Your task to perform on an android device: Open Youtube and go to "Your channel" Image 0: 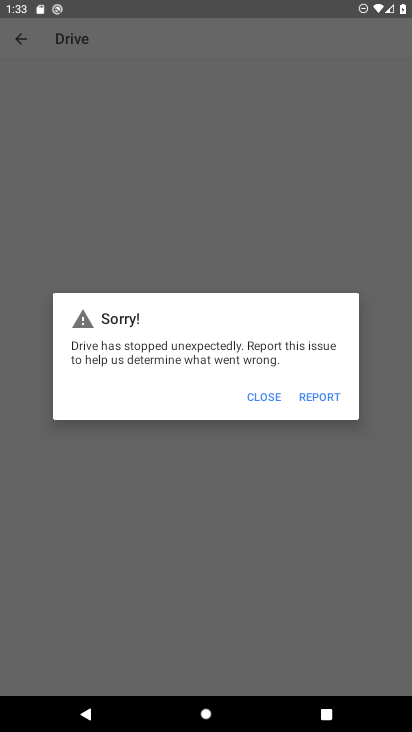
Step 0: press home button
Your task to perform on an android device: Open Youtube and go to "Your channel" Image 1: 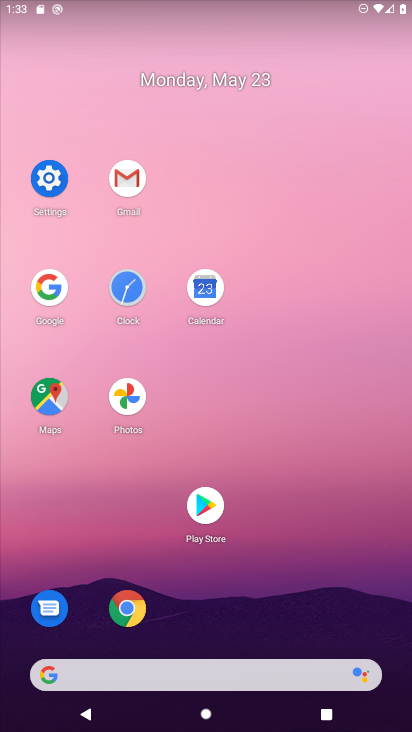
Step 1: drag from (240, 625) to (215, 210)
Your task to perform on an android device: Open Youtube and go to "Your channel" Image 2: 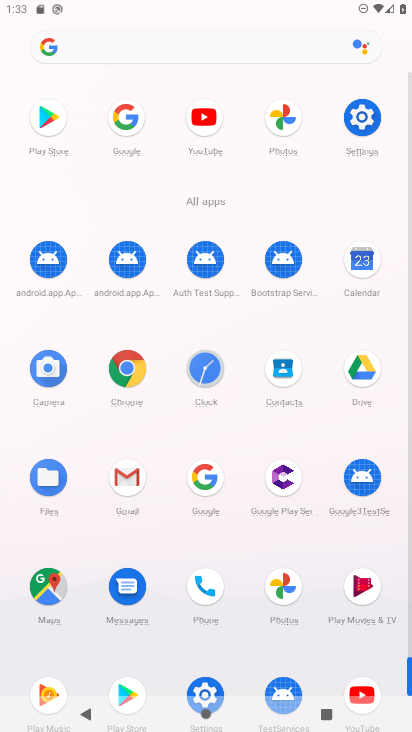
Step 2: click (208, 118)
Your task to perform on an android device: Open Youtube and go to "Your channel" Image 3: 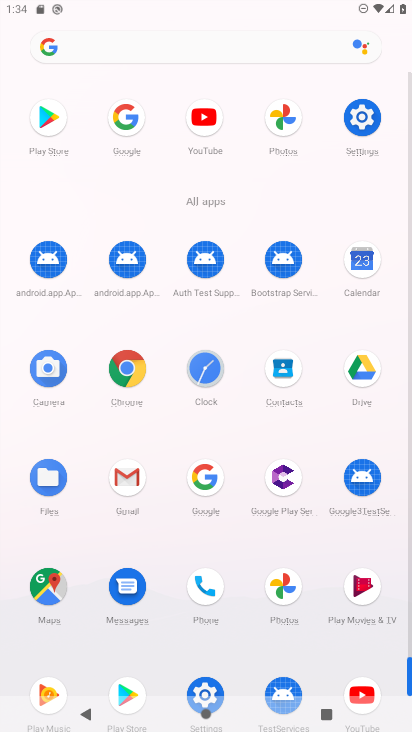
Step 3: drag from (315, 607) to (251, 173)
Your task to perform on an android device: Open Youtube and go to "Your channel" Image 4: 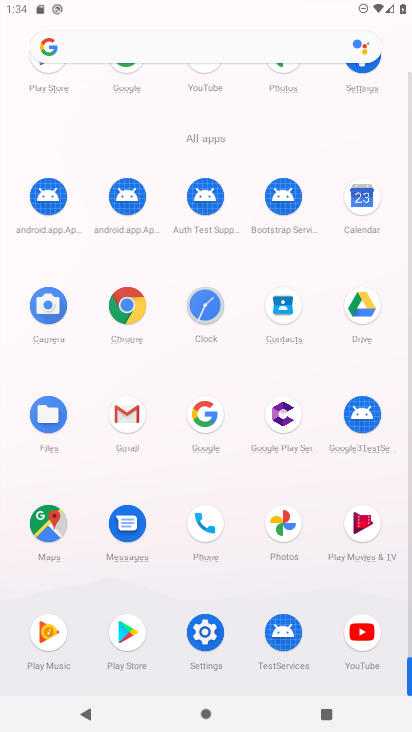
Step 4: click (361, 649)
Your task to perform on an android device: Open Youtube and go to "Your channel" Image 5: 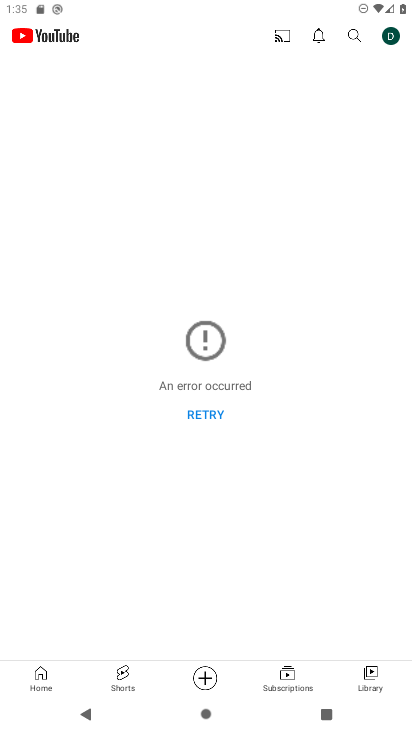
Step 5: click (389, 36)
Your task to perform on an android device: Open Youtube and go to "Your channel" Image 6: 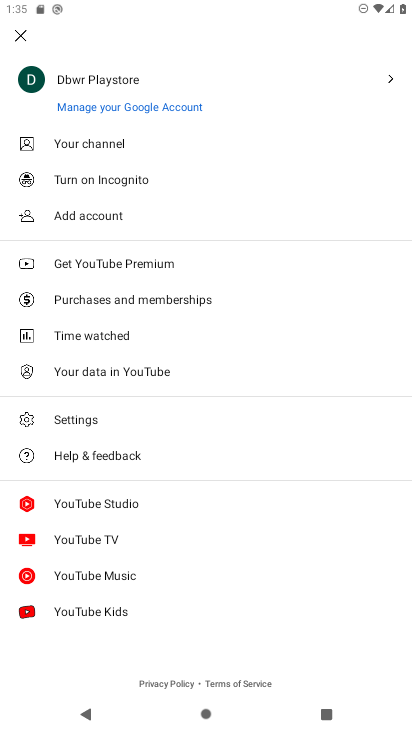
Step 6: click (120, 132)
Your task to perform on an android device: Open Youtube and go to "Your channel" Image 7: 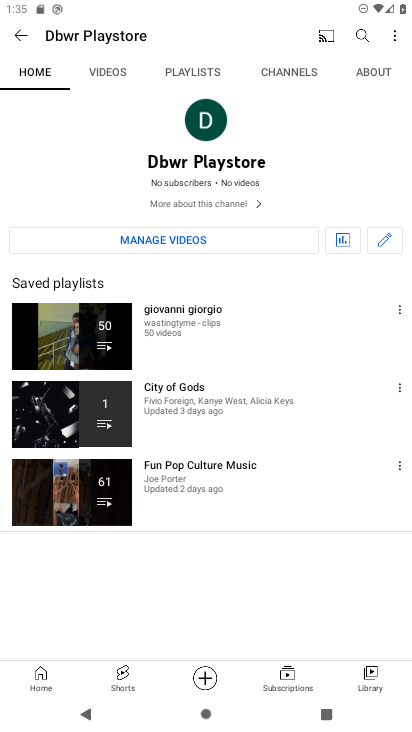
Step 7: task complete